Your task to perform on an android device: Search for dell alienware on walmart.com, select the first entry, add it to the cart, then select checkout. Image 0: 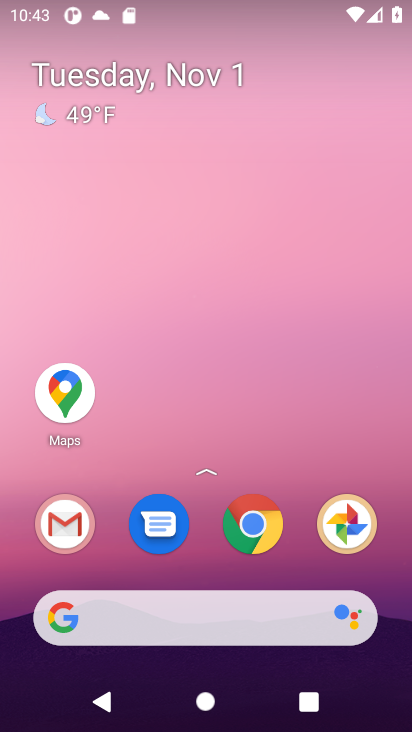
Step 0: press home button
Your task to perform on an android device: Search for dell alienware on walmart.com, select the first entry, add it to the cart, then select checkout. Image 1: 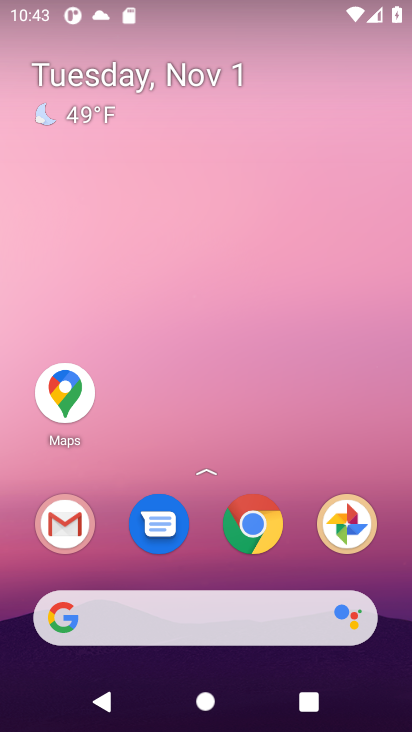
Step 1: click (91, 617)
Your task to perform on an android device: Search for dell alienware on walmart.com, select the first entry, add it to the cart, then select checkout. Image 2: 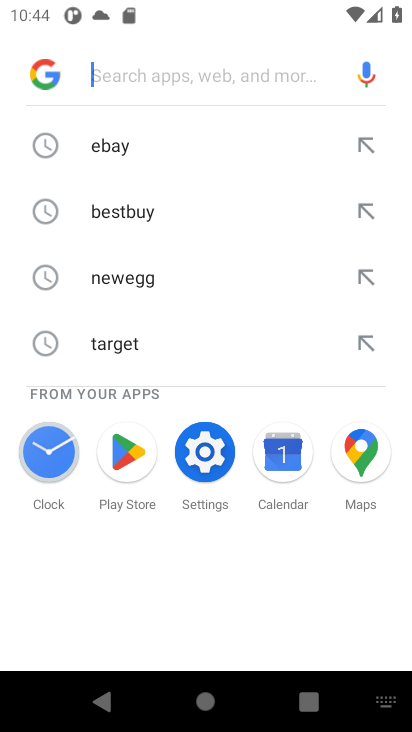
Step 2: press enter
Your task to perform on an android device: Search for dell alienware on walmart.com, select the first entry, add it to the cart, then select checkout. Image 3: 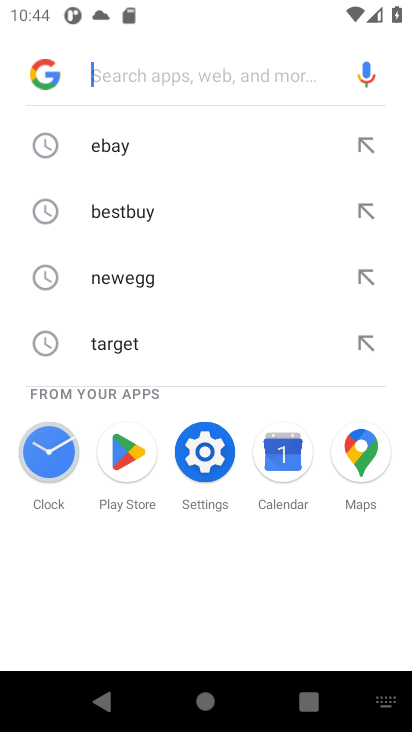
Step 3: type "dell alienware"
Your task to perform on an android device: Search for dell alienware on walmart.com, select the first entry, add it to the cart, then select checkout. Image 4: 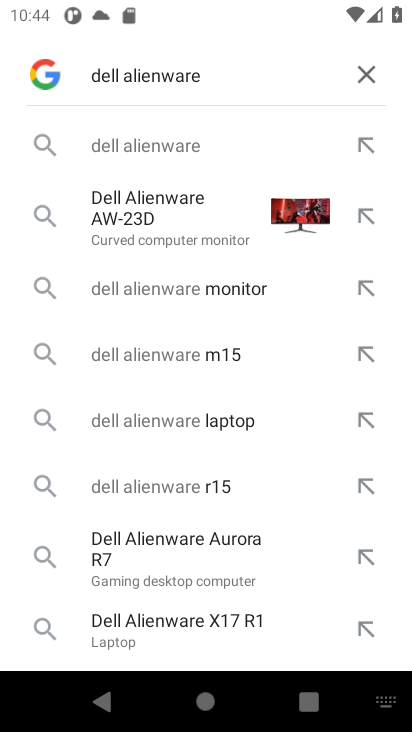
Step 4: press enter
Your task to perform on an android device: Search for dell alienware on walmart.com, select the first entry, add it to the cart, then select checkout. Image 5: 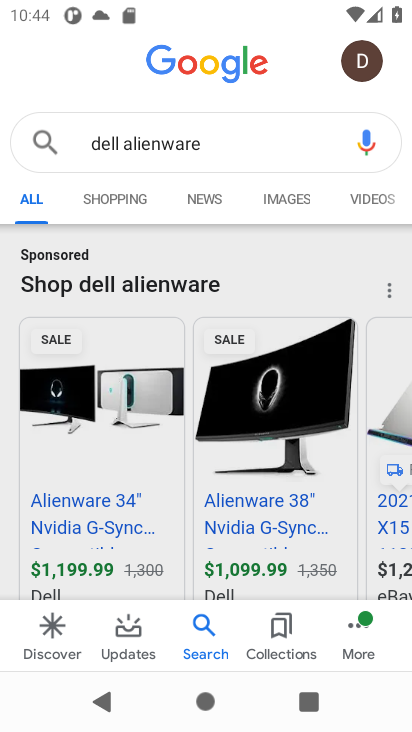
Step 5: drag from (268, 529) to (187, 232)
Your task to perform on an android device: Search for dell alienware on walmart.com, select the first entry, add it to the cart, then select checkout. Image 6: 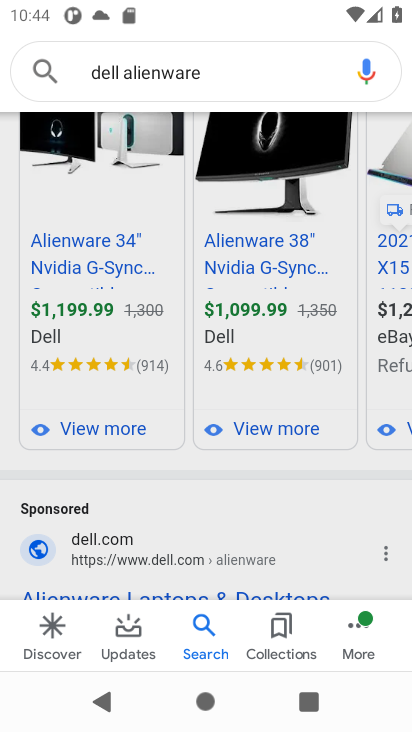
Step 6: drag from (123, 515) to (136, 229)
Your task to perform on an android device: Search for dell alienware on walmart.com, select the first entry, add it to the cart, then select checkout. Image 7: 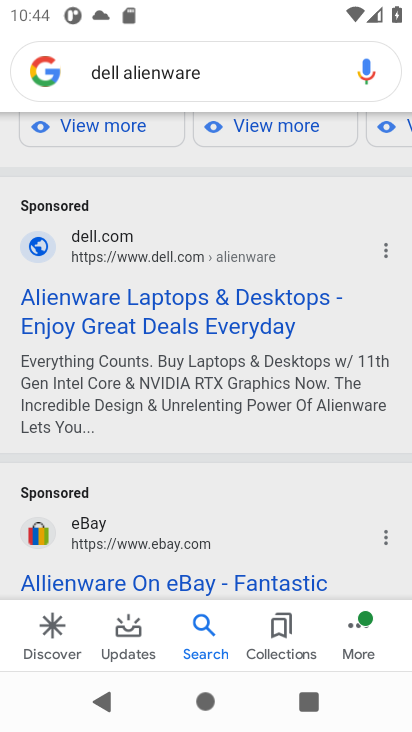
Step 7: drag from (169, 511) to (170, 265)
Your task to perform on an android device: Search for dell alienware on walmart.com, select the first entry, add it to the cart, then select checkout. Image 8: 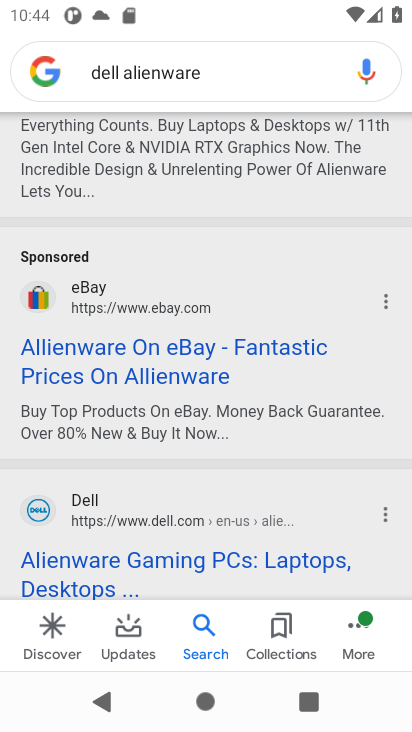
Step 8: drag from (202, 191) to (199, 450)
Your task to perform on an android device: Search for dell alienware on walmart.com, select the first entry, add it to the cart, then select checkout. Image 9: 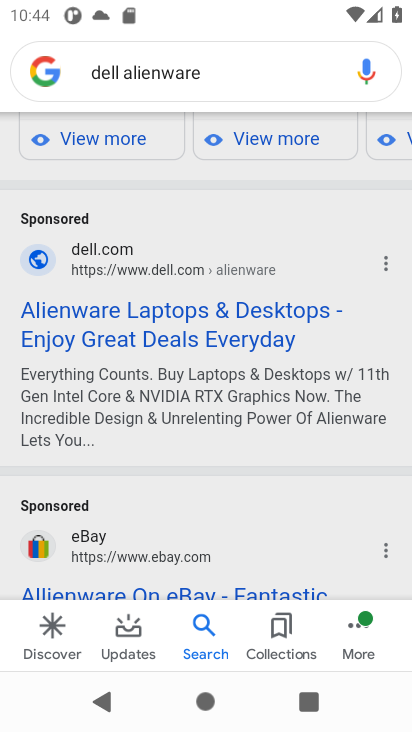
Step 9: drag from (184, 478) to (178, 300)
Your task to perform on an android device: Search for dell alienware on walmart.com, select the first entry, add it to the cart, then select checkout. Image 10: 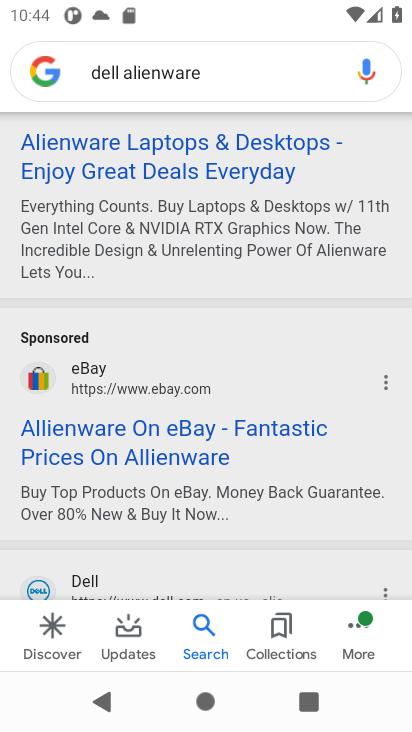
Step 10: drag from (189, 233) to (194, 464)
Your task to perform on an android device: Search for dell alienware on walmart.com, select the first entry, add it to the cart, then select checkout. Image 11: 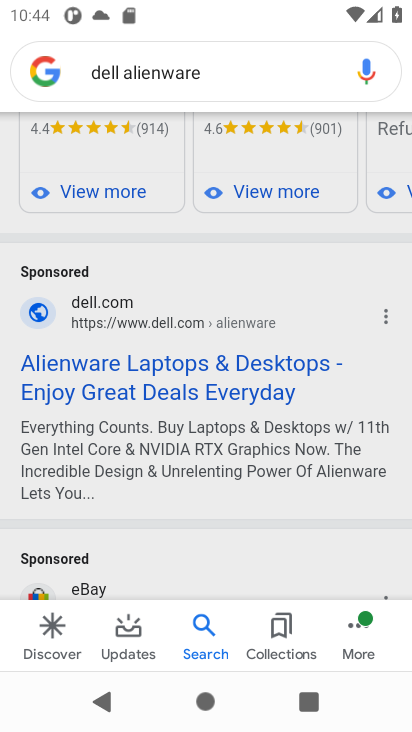
Step 11: click (227, 73)
Your task to perform on an android device: Search for dell alienware on walmart.com, select the first entry, add it to the cart, then select checkout. Image 12: 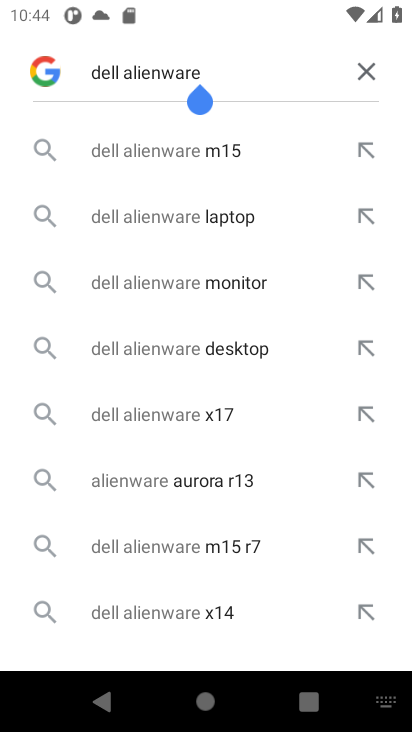
Step 12: click (367, 65)
Your task to perform on an android device: Search for dell alienware on walmart.com, select the first entry, add it to the cart, then select checkout. Image 13: 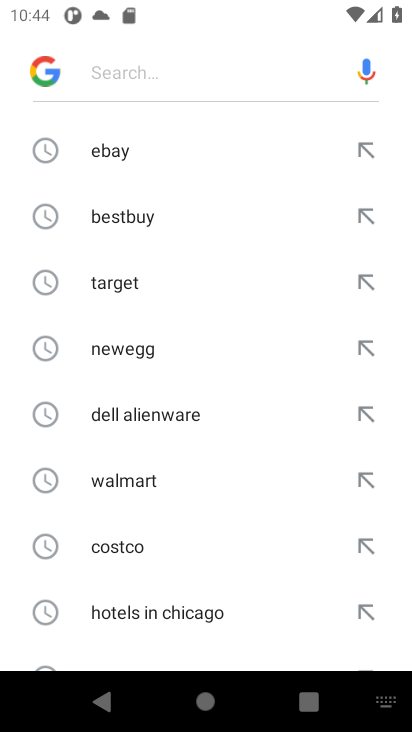
Step 13: click (101, 71)
Your task to perform on an android device: Search for dell alienware on walmart.com, select the first entry, add it to the cart, then select checkout. Image 14: 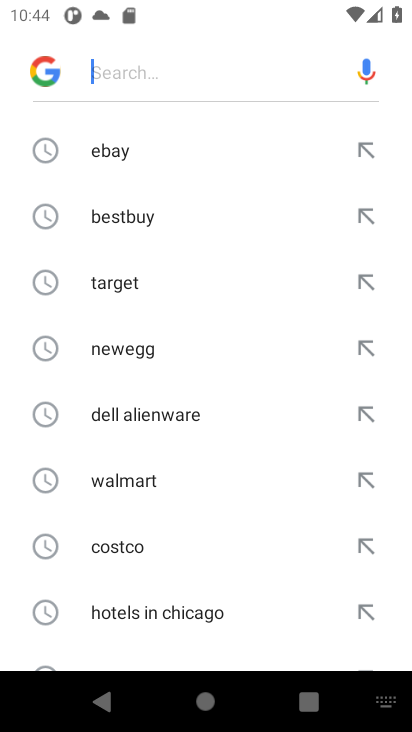
Step 14: type "walmart.com"
Your task to perform on an android device: Search for dell alienware on walmart.com, select the first entry, add it to the cart, then select checkout. Image 15: 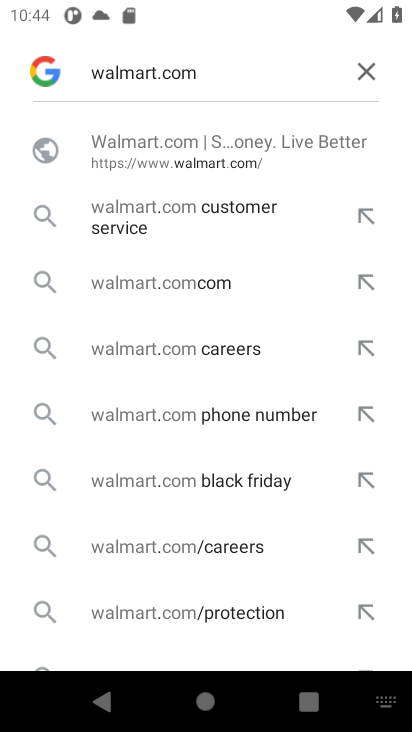
Step 15: press enter
Your task to perform on an android device: Search for dell alienware on walmart.com, select the first entry, add it to the cart, then select checkout. Image 16: 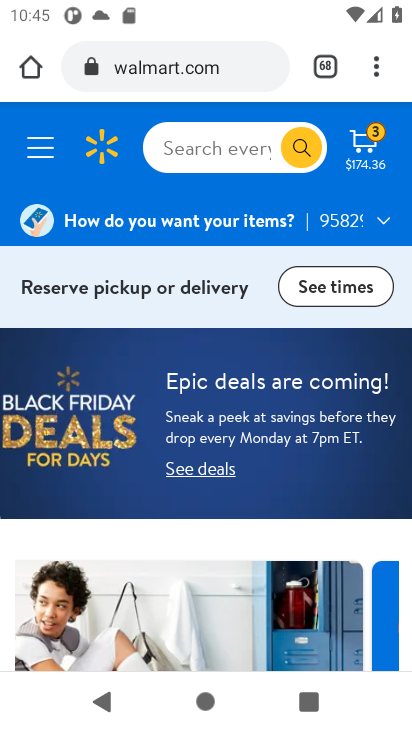
Step 16: click (195, 134)
Your task to perform on an android device: Search for dell alienware on walmart.com, select the first entry, add it to the cart, then select checkout. Image 17: 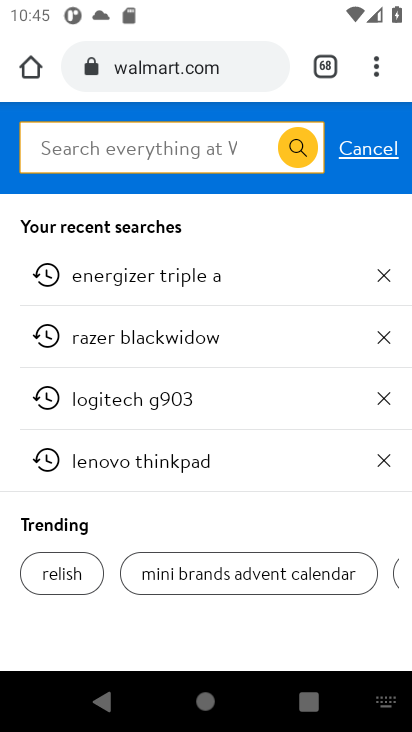
Step 17: type "dell alienware "
Your task to perform on an android device: Search for dell alienware on walmart.com, select the first entry, add it to the cart, then select checkout. Image 18: 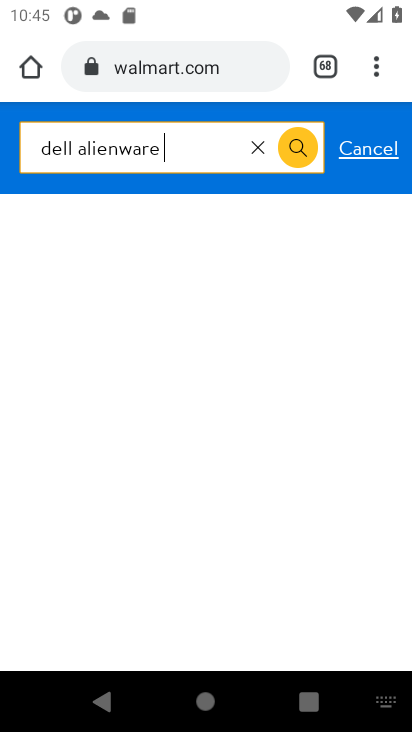
Step 18: press enter
Your task to perform on an android device: Search for dell alienware on walmart.com, select the first entry, add it to the cart, then select checkout. Image 19: 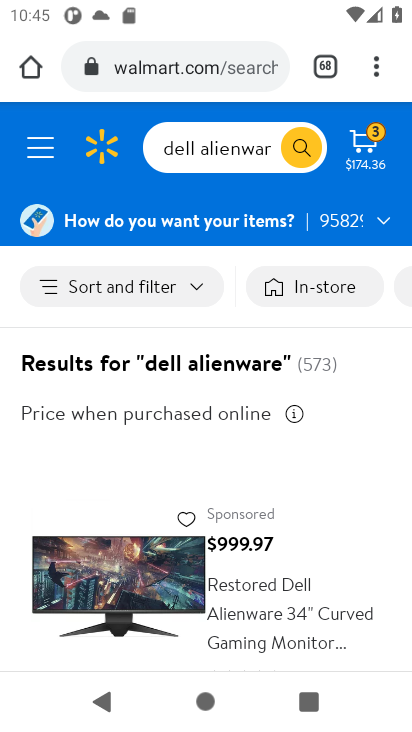
Step 19: drag from (279, 596) to (259, 343)
Your task to perform on an android device: Search for dell alienware on walmart.com, select the first entry, add it to the cart, then select checkout. Image 20: 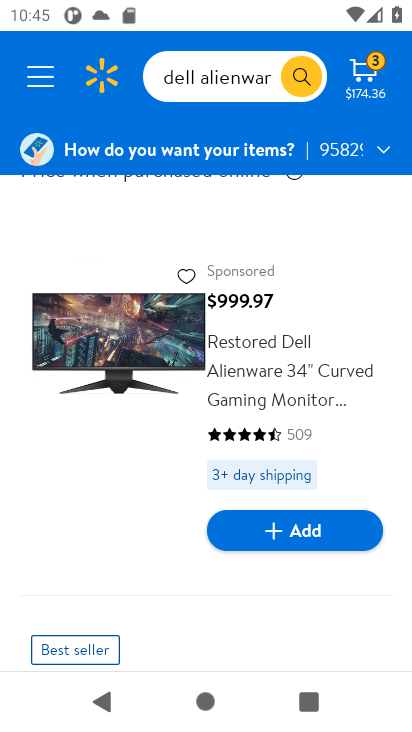
Step 20: drag from (167, 579) to (189, 345)
Your task to perform on an android device: Search for dell alienware on walmart.com, select the first entry, add it to the cart, then select checkout. Image 21: 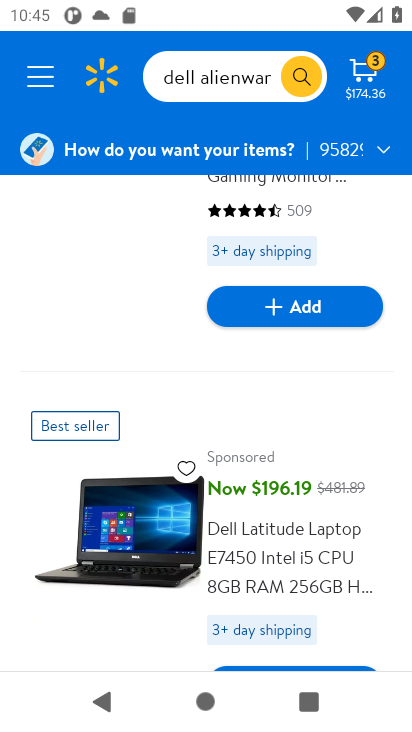
Step 21: drag from (180, 244) to (200, 456)
Your task to perform on an android device: Search for dell alienware on walmart.com, select the first entry, add it to the cart, then select checkout. Image 22: 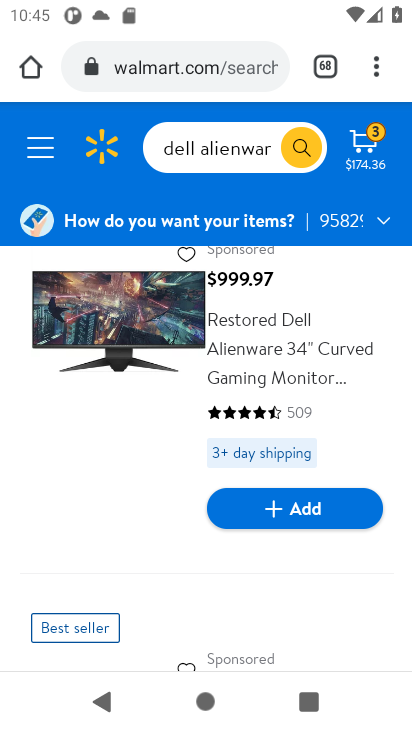
Step 22: drag from (166, 551) to (156, 417)
Your task to perform on an android device: Search for dell alienware on walmart.com, select the first entry, add it to the cart, then select checkout. Image 23: 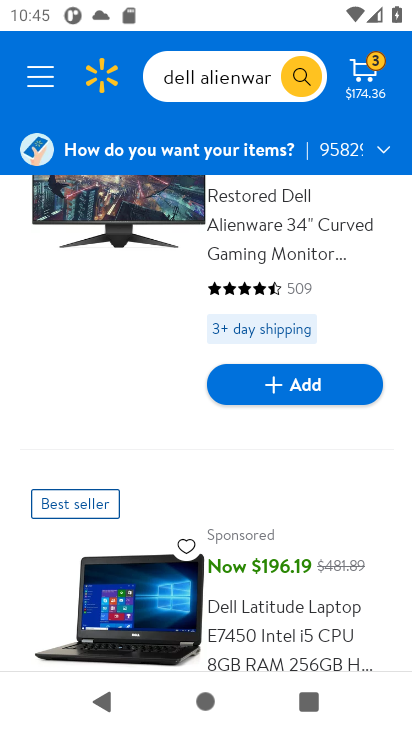
Step 23: drag from (160, 256) to (170, 529)
Your task to perform on an android device: Search for dell alienware on walmart.com, select the first entry, add it to the cart, then select checkout. Image 24: 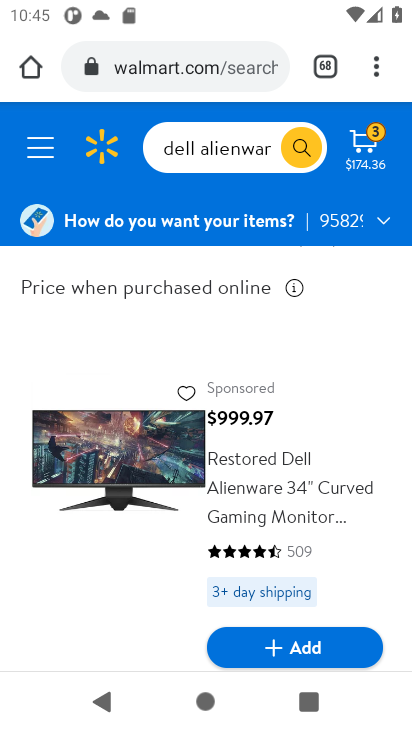
Step 24: drag from (168, 565) to (170, 408)
Your task to perform on an android device: Search for dell alienware on walmart.com, select the first entry, add it to the cart, then select checkout. Image 25: 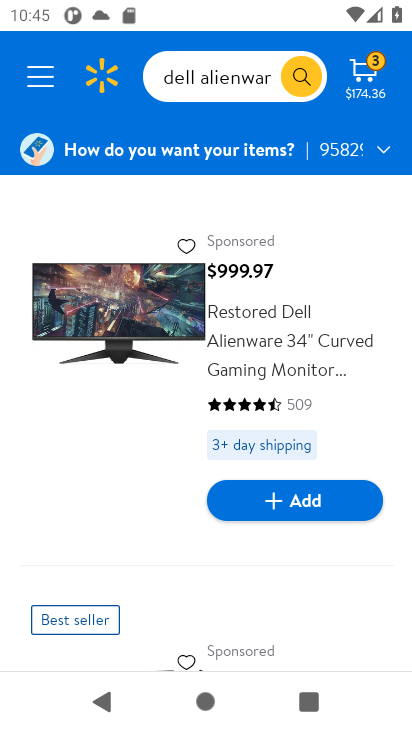
Step 25: click (320, 508)
Your task to perform on an android device: Search for dell alienware on walmart.com, select the first entry, add it to the cart, then select checkout. Image 26: 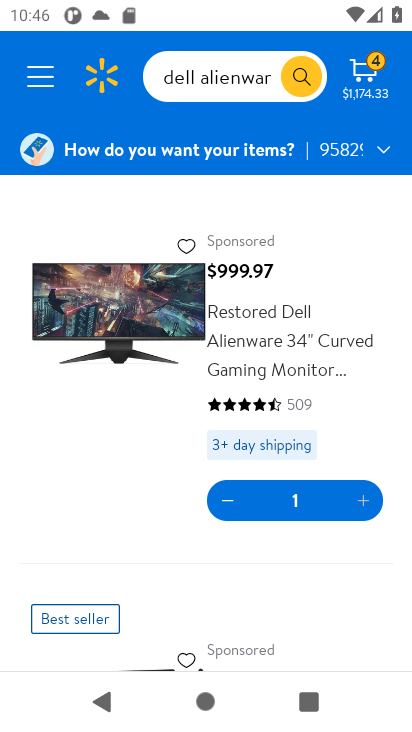
Step 26: click (374, 58)
Your task to perform on an android device: Search for dell alienware on walmart.com, select the first entry, add it to the cart, then select checkout. Image 27: 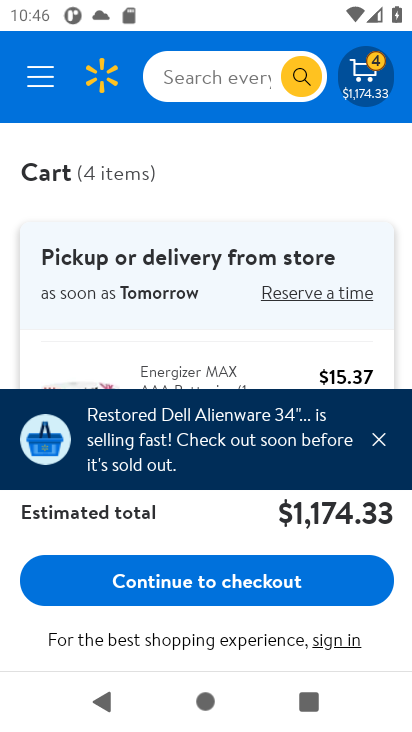
Step 27: click (380, 436)
Your task to perform on an android device: Search for dell alienware on walmart.com, select the first entry, add it to the cart, then select checkout. Image 28: 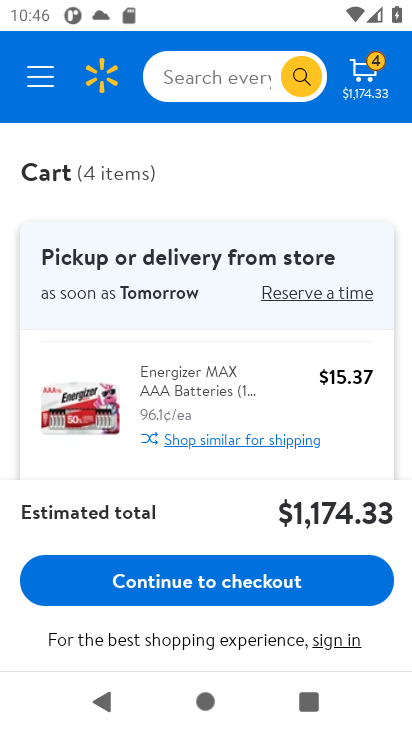
Step 28: drag from (210, 457) to (221, 261)
Your task to perform on an android device: Search for dell alienware on walmart.com, select the first entry, add it to the cart, then select checkout. Image 29: 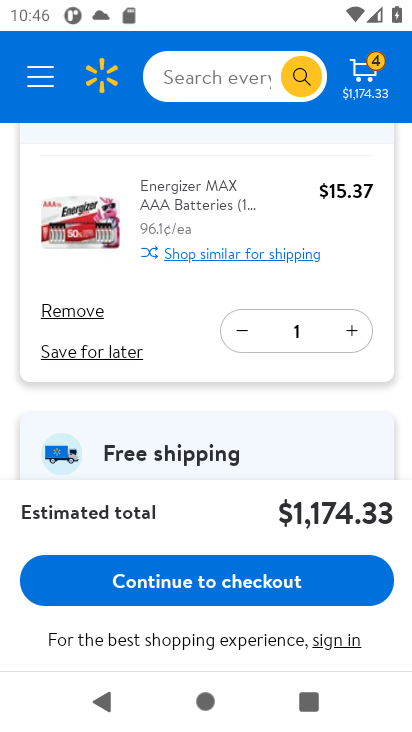
Step 29: click (210, 586)
Your task to perform on an android device: Search for dell alienware on walmart.com, select the first entry, add it to the cart, then select checkout. Image 30: 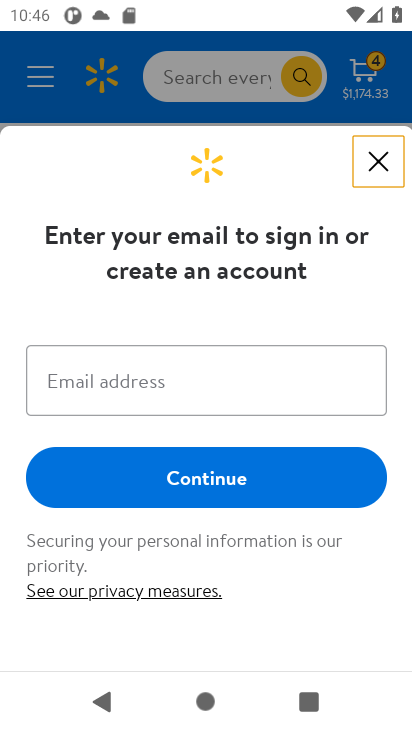
Step 30: task complete